Your task to perform on an android device: Do I have any events tomorrow? Image 0: 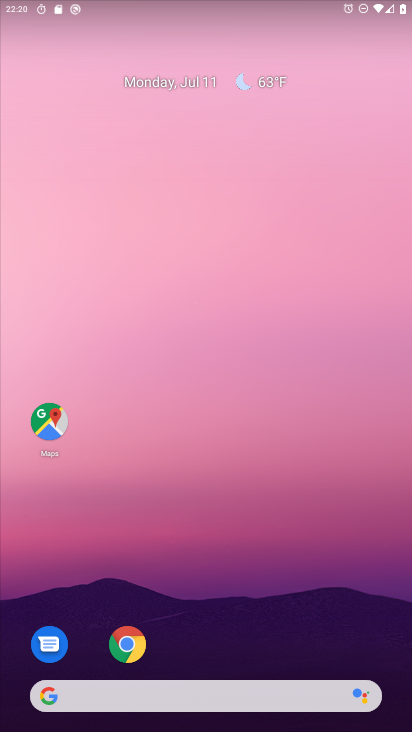
Step 0: drag from (335, 575) to (317, 176)
Your task to perform on an android device: Do I have any events tomorrow? Image 1: 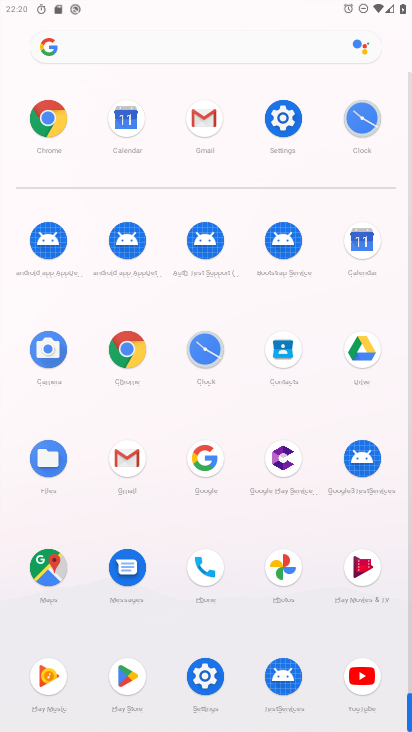
Step 1: click (366, 247)
Your task to perform on an android device: Do I have any events tomorrow? Image 2: 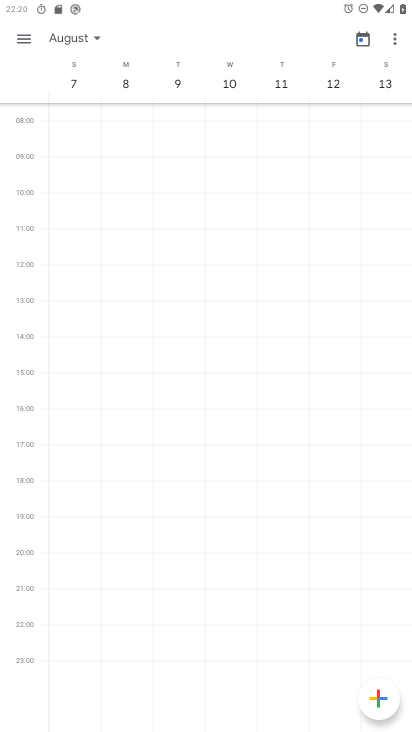
Step 2: click (86, 34)
Your task to perform on an android device: Do I have any events tomorrow? Image 3: 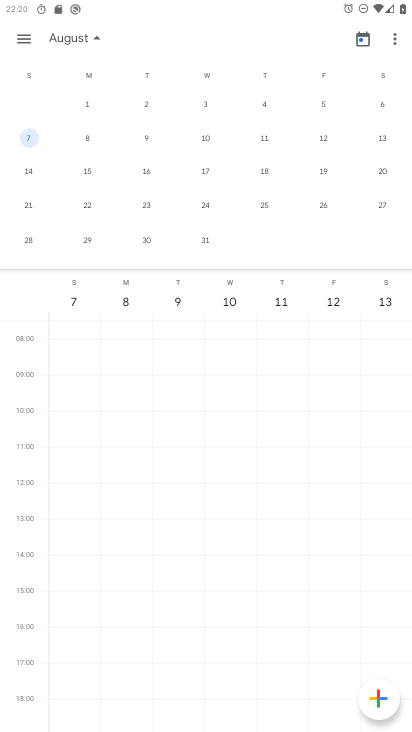
Step 3: drag from (42, 190) to (333, 169)
Your task to perform on an android device: Do I have any events tomorrow? Image 4: 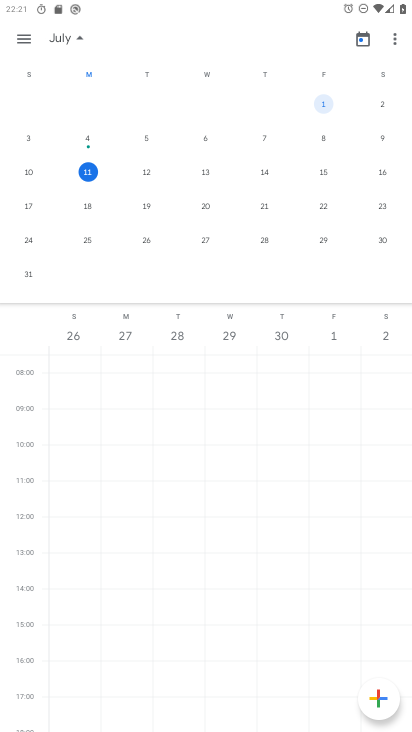
Step 4: click (147, 163)
Your task to perform on an android device: Do I have any events tomorrow? Image 5: 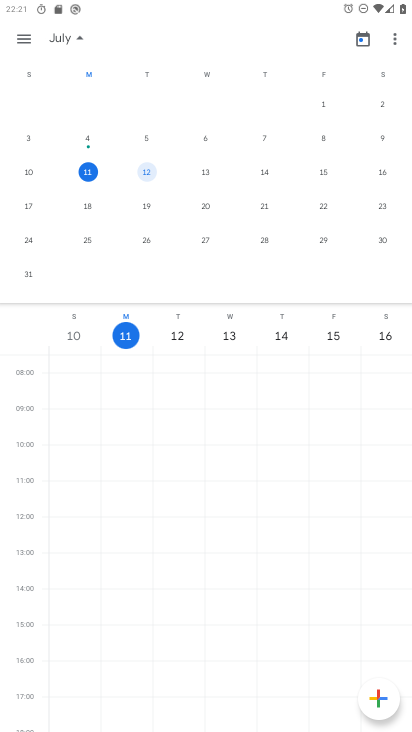
Step 5: click (29, 38)
Your task to perform on an android device: Do I have any events tomorrow? Image 6: 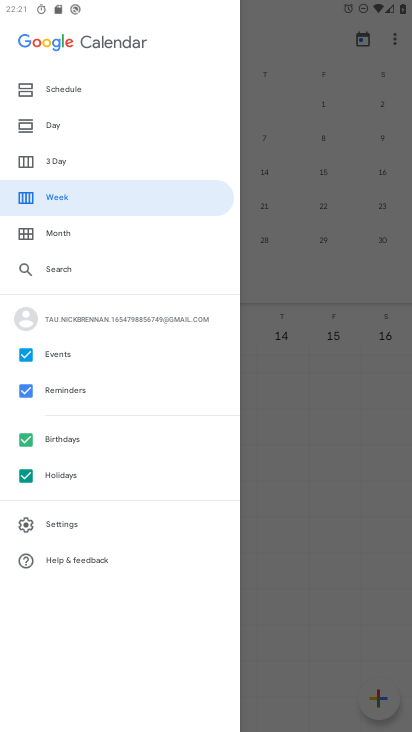
Step 6: click (66, 123)
Your task to perform on an android device: Do I have any events tomorrow? Image 7: 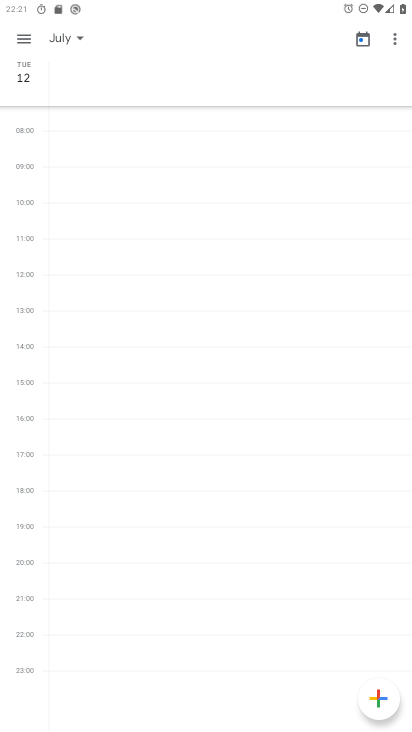
Step 7: task complete